Your task to perform on an android device: Search for a new lawnmower on home depot Image 0: 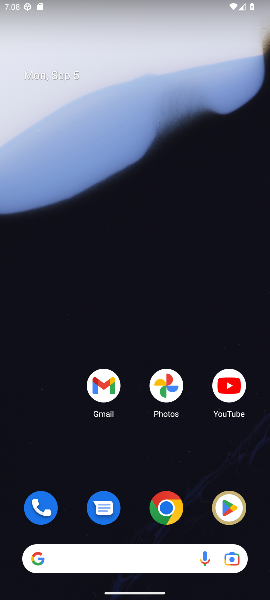
Step 0: click (163, 505)
Your task to perform on an android device: Search for a new lawnmower on home depot Image 1: 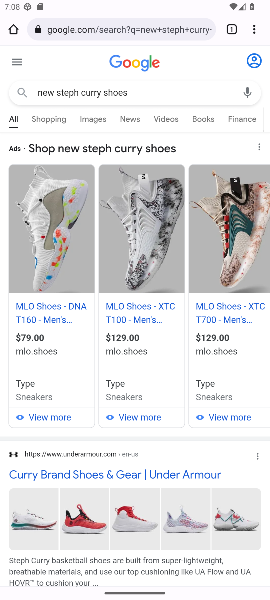
Step 1: click (117, 30)
Your task to perform on an android device: Search for a new lawnmower on home depot Image 2: 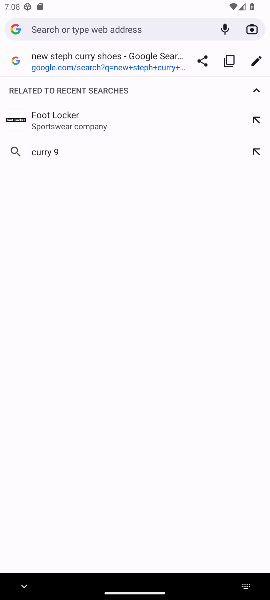
Step 2: type "home depot"
Your task to perform on an android device: Search for a new lawnmower on home depot Image 3: 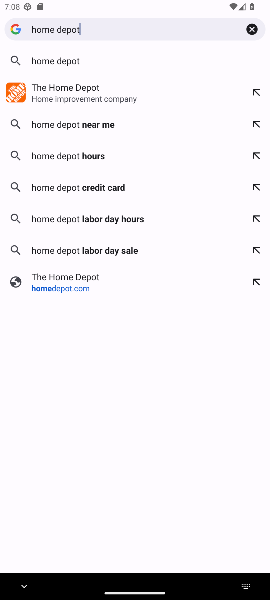
Step 3: click (49, 65)
Your task to perform on an android device: Search for a new lawnmower on home depot Image 4: 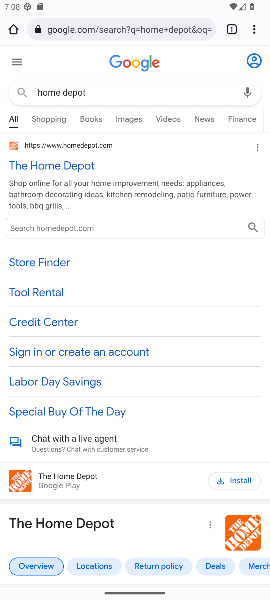
Step 4: click (51, 168)
Your task to perform on an android device: Search for a new lawnmower on home depot Image 5: 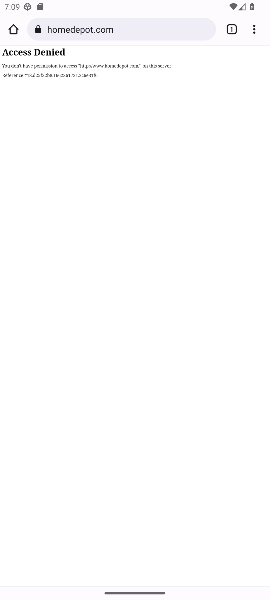
Step 5: task complete